Your task to perform on an android device: turn pop-ups off in chrome Image 0: 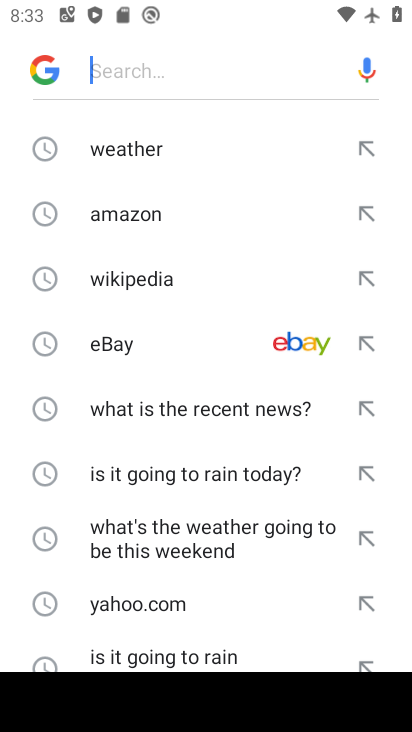
Step 0: press home button
Your task to perform on an android device: turn pop-ups off in chrome Image 1: 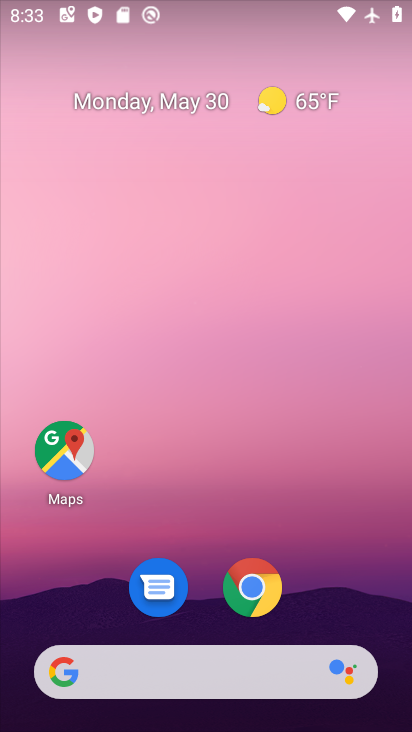
Step 1: click (246, 587)
Your task to perform on an android device: turn pop-ups off in chrome Image 2: 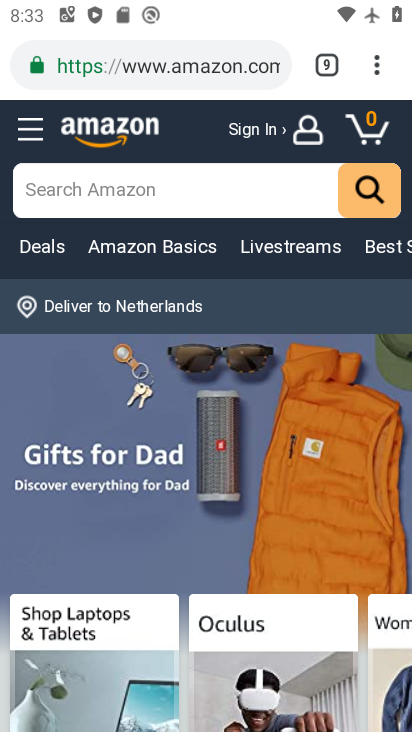
Step 2: drag from (378, 69) to (205, 640)
Your task to perform on an android device: turn pop-ups off in chrome Image 3: 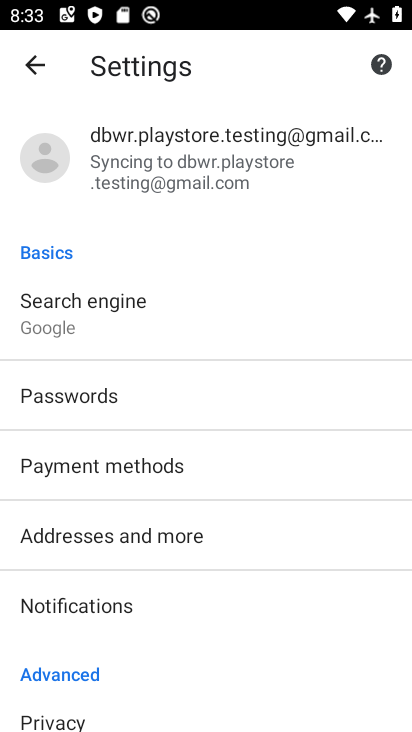
Step 3: drag from (183, 658) to (231, 328)
Your task to perform on an android device: turn pop-ups off in chrome Image 4: 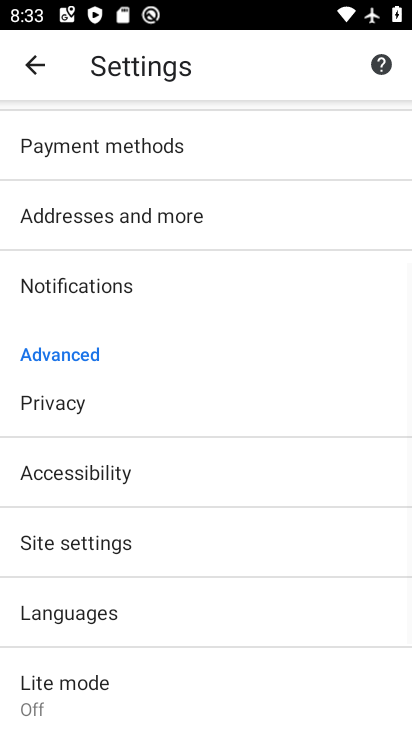
Step 4: click (98, 556)
Your task to perform on an android device: turn pop-ups off in chrome Image 5: 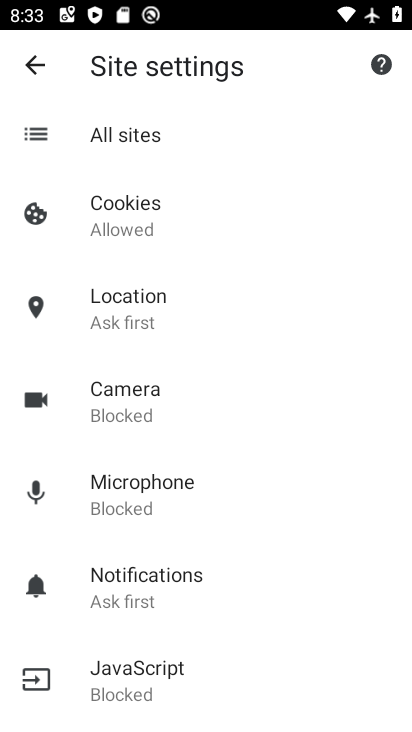
Step 5: drag from (239, 682) to (287, 361)
Your task to perform on an android device: turn pop-ups off in chrome Image 6: 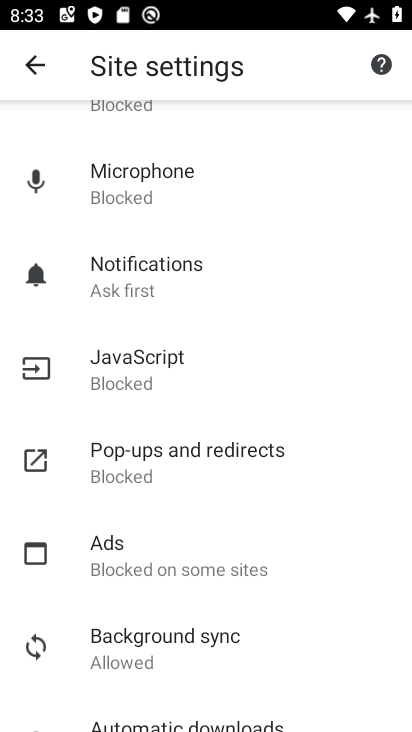
Step 6: click (186, 448)
Your task to perform on an android device: turn pop-ups off in chrome Image 7: 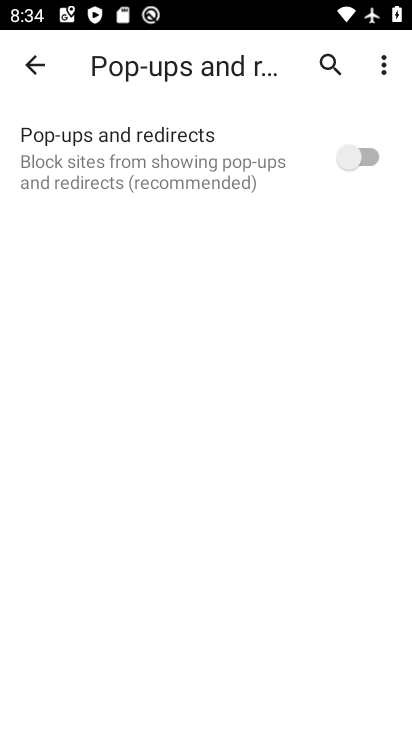
Step 7: task complete